Your task to perform on an android device: Open Youtube and go to "Your channel" Image 0: 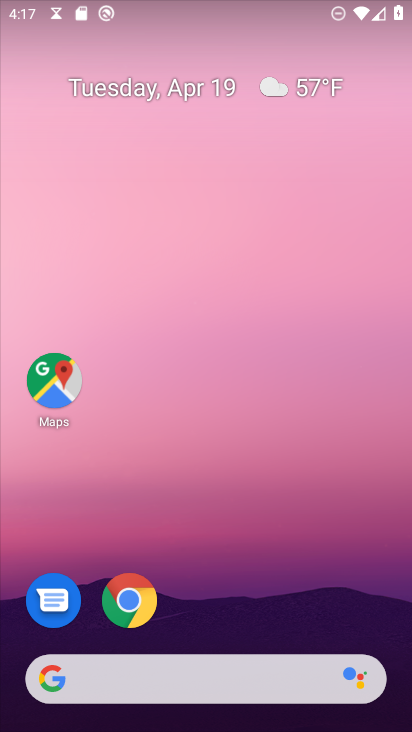
Step 0: drag from (330, 608) to (283, 134)
Your task to perform on an android device: Open Youtube and go to "Your channel" Image 1: 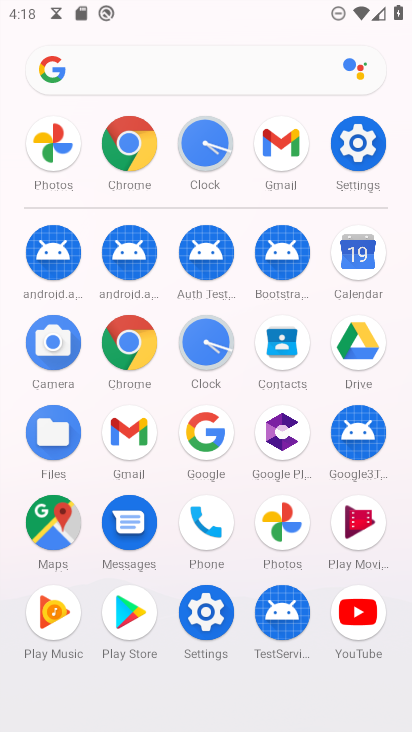
Step 1: click (361, 620)
Your task to perform on an android device: Open Youtube and go to "Your channel" Image 2: 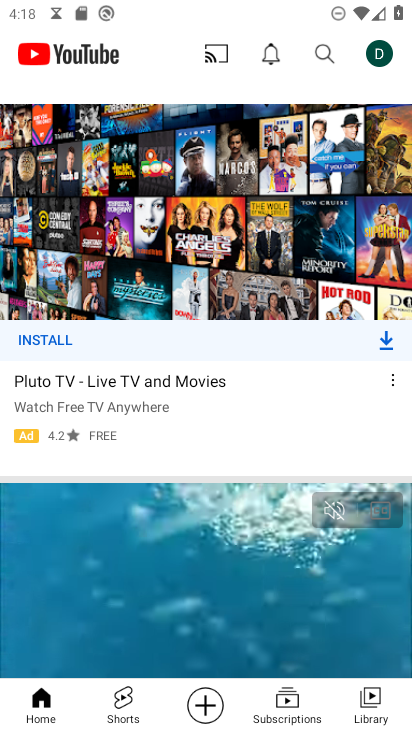
Step 2: click (378, 58)
Your task to perform on an android device: Open Youtube and go to "Your channel" Image 3: 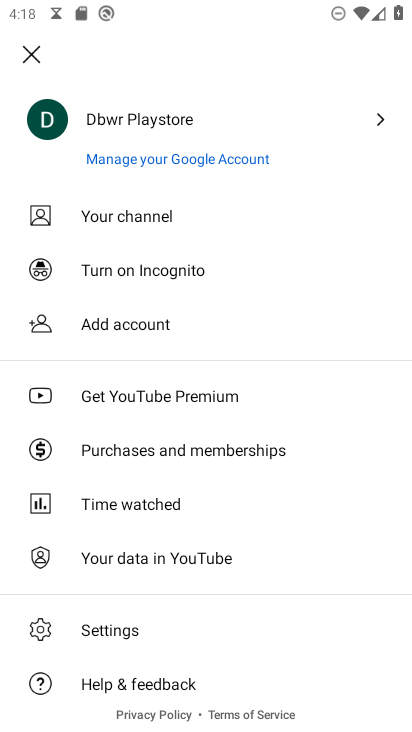
Step 3: click (222, 212)
Your task to perform on an android device: Open Youtube and go to "Your channel" Image 4: 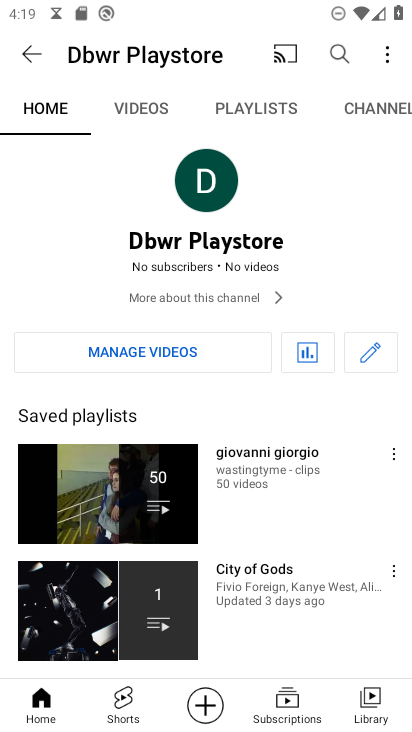
Step 4: task complete